Your task to perform on an android device: turn off notifications in google photos Image 0: 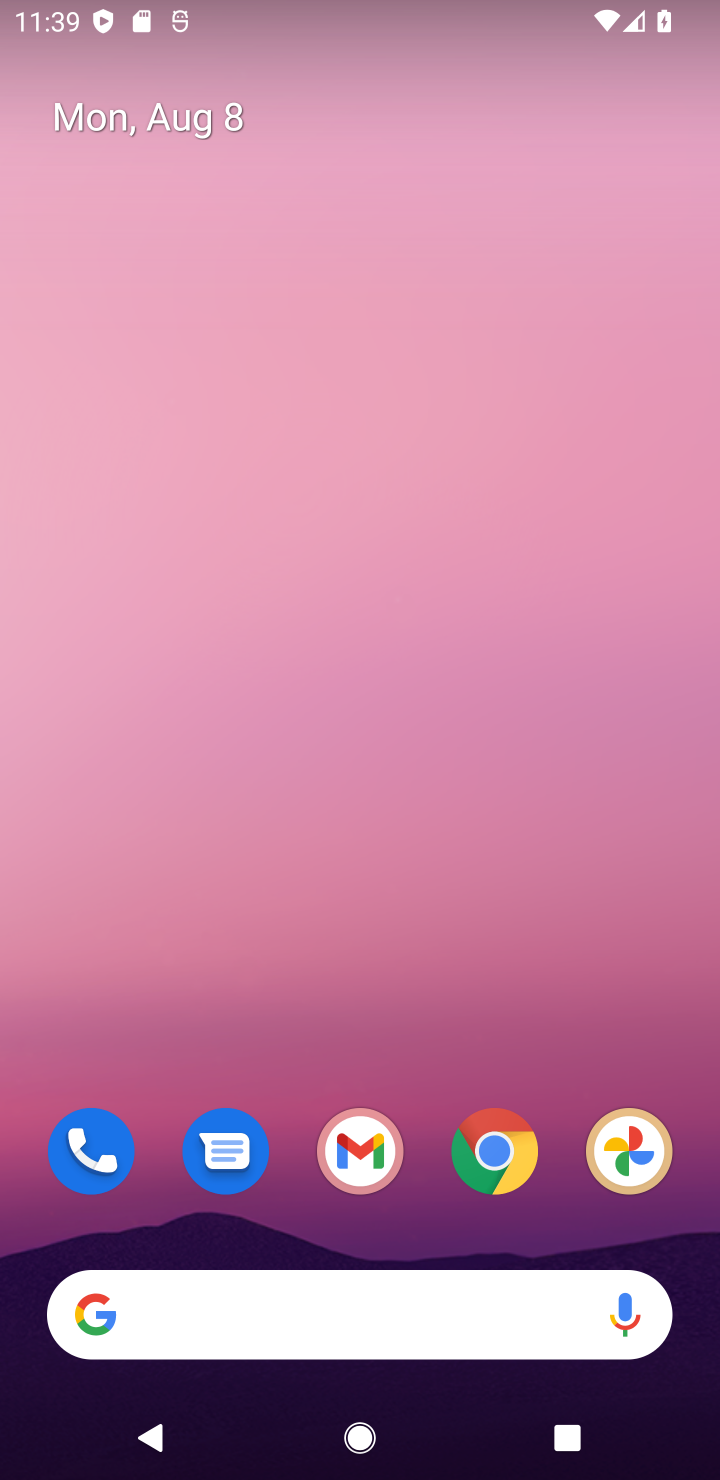
Step 0: drag from (408, 1320) to (406, 352)
Your task to perform on an android device: turn off notifications in google photos Image 1: 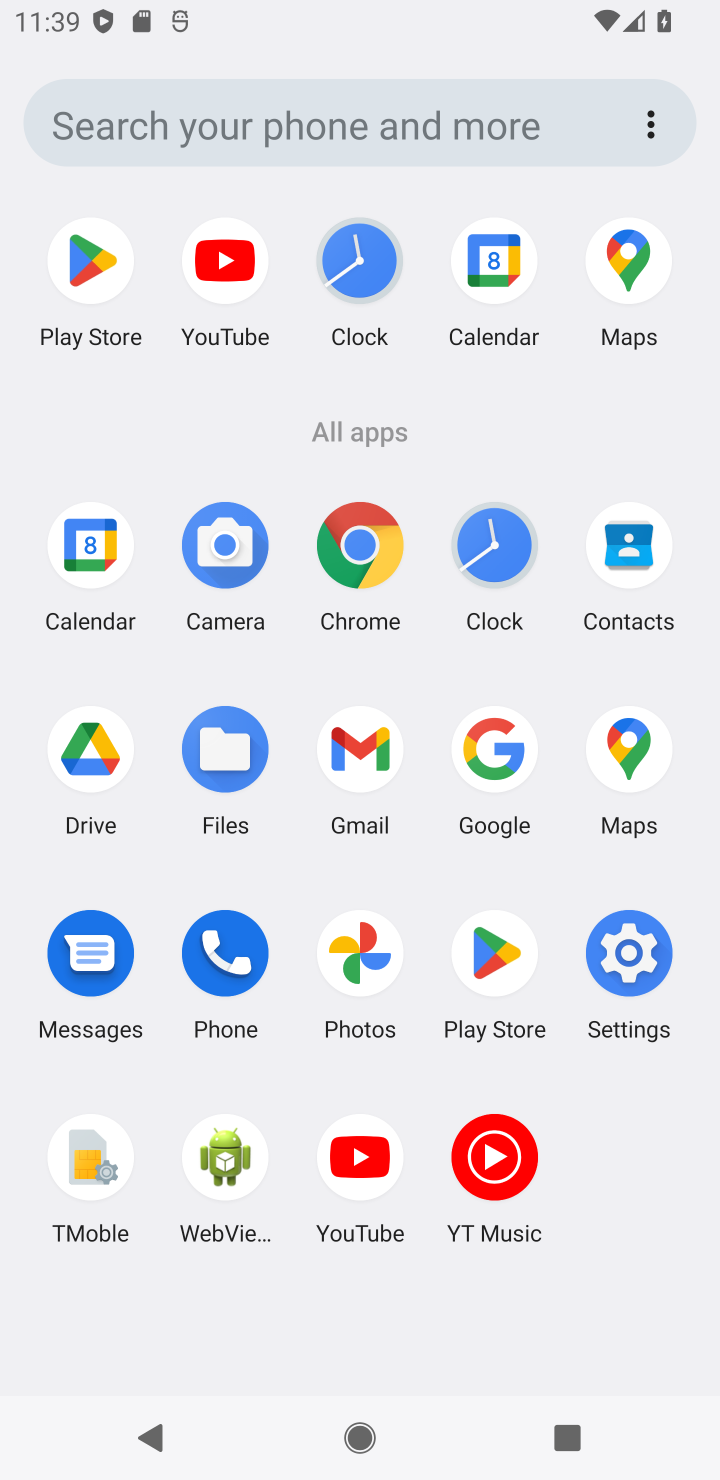
Step 1: click (366, 953)
Your task to perform on an android device: turn off notifications in google photos Image 2: 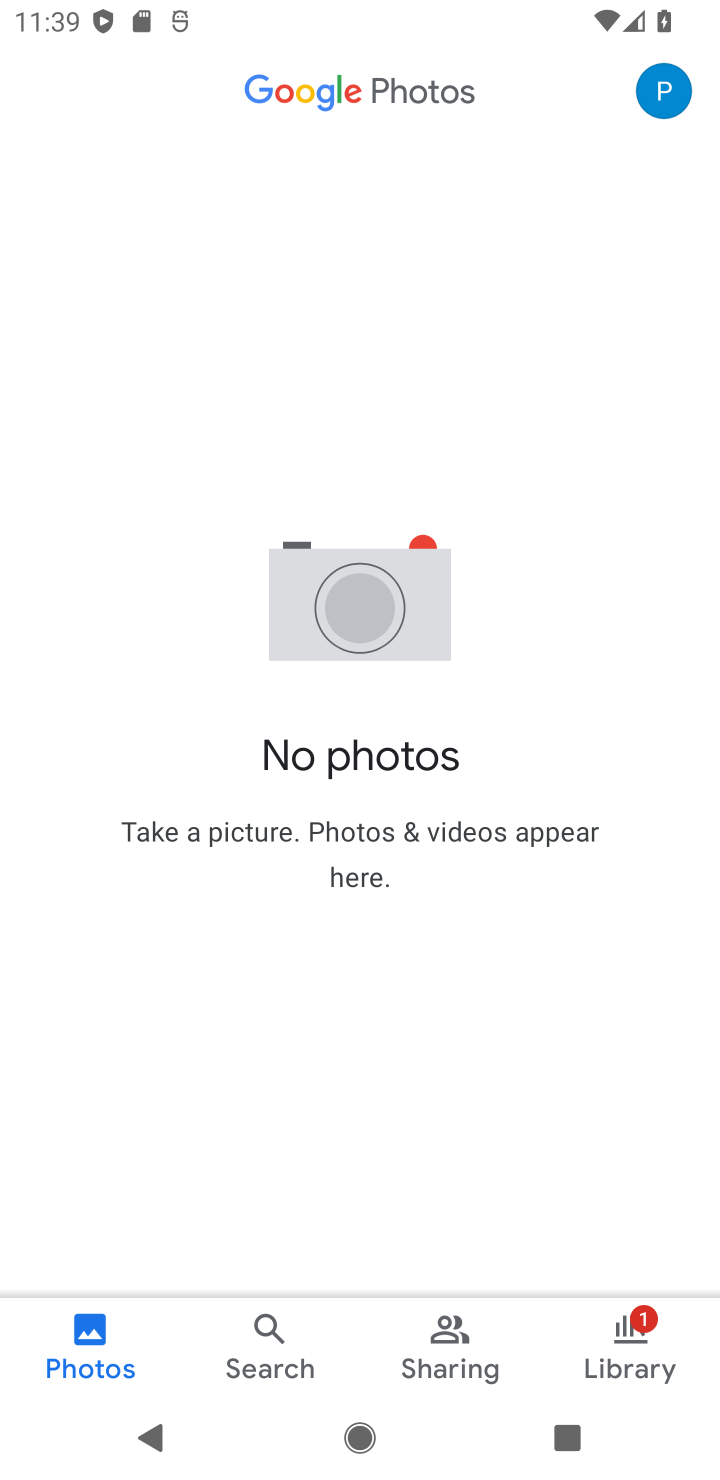
Step 2: press home button
Your task to perform on an android device: turn off notifications in google photos Image 3: 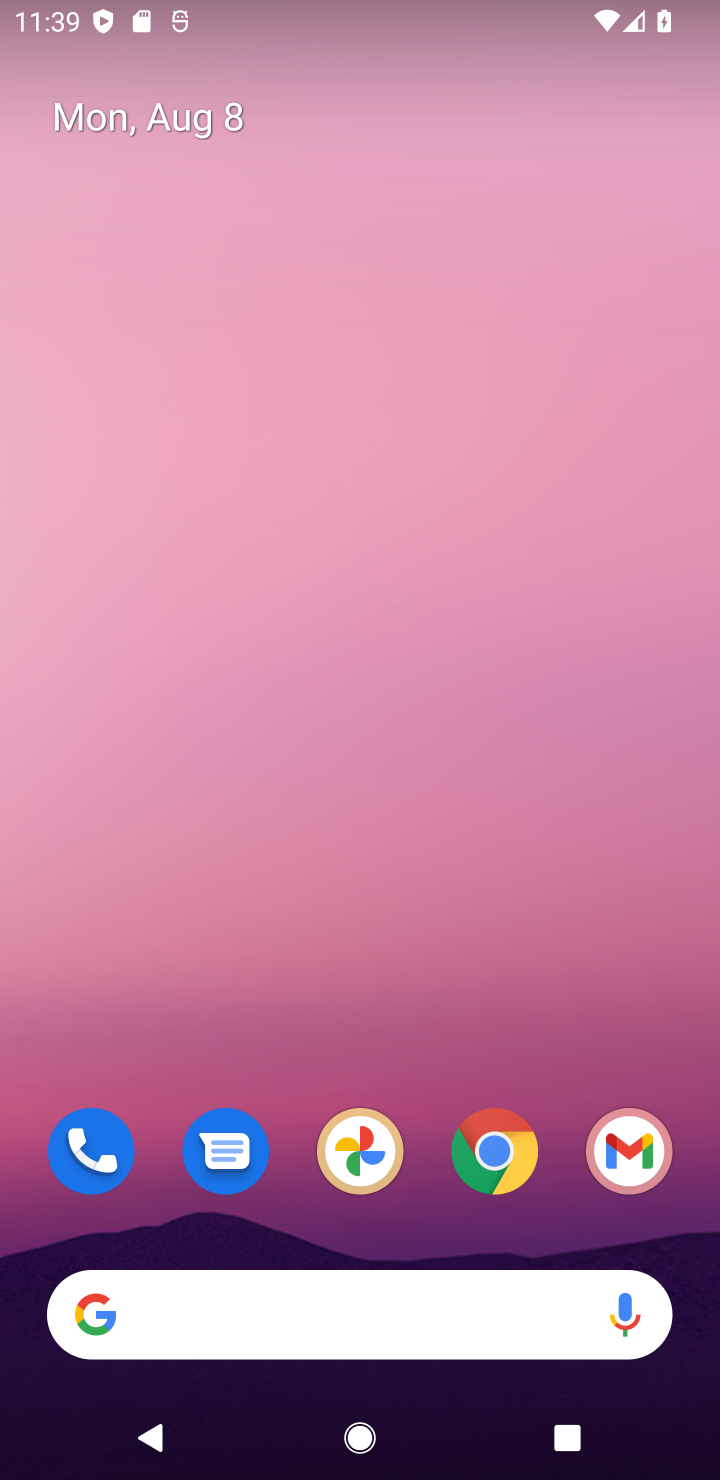
Step 3: click (365, 1155)
Your task to perform on an android device: turn off notifications in google photos Image 4: 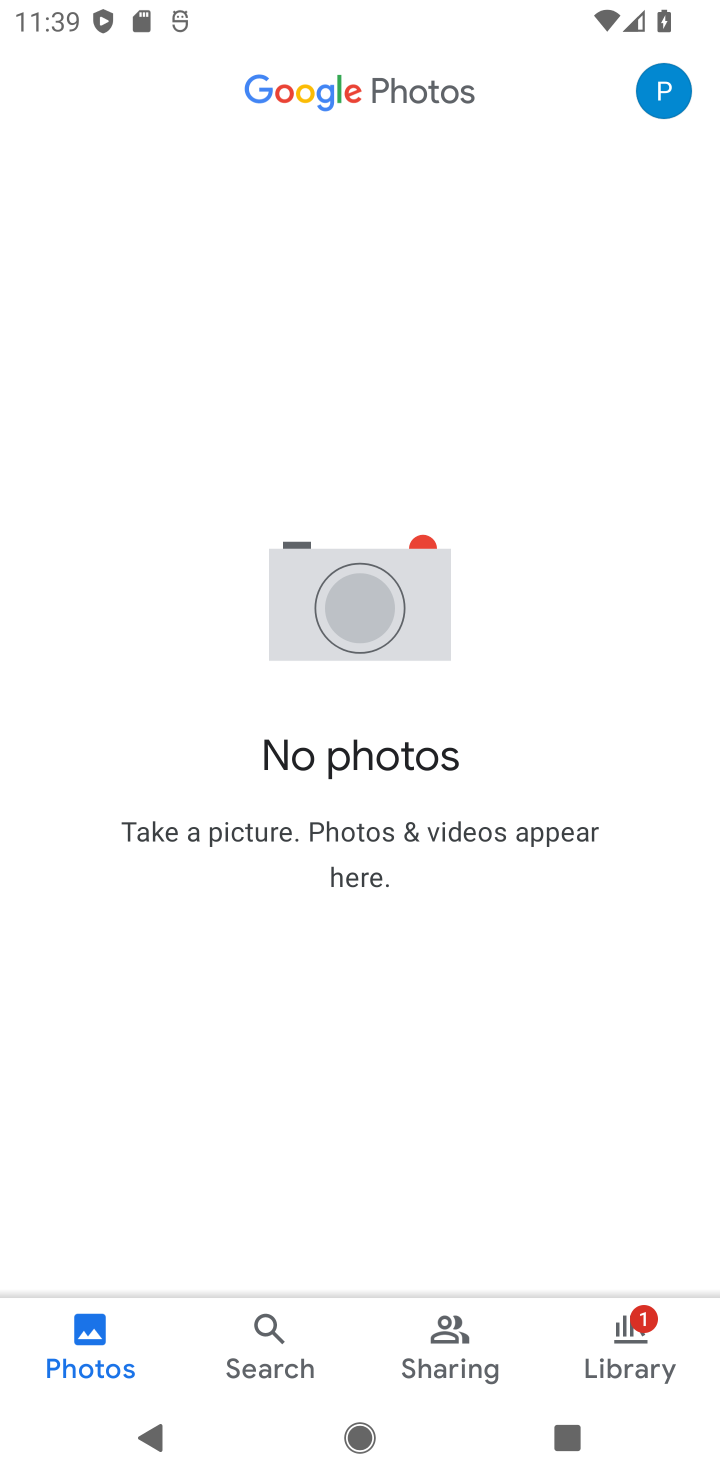
Step 4: click (678, 93)
Your task to perform on an android device: turn off notifications in google photos Image 5: 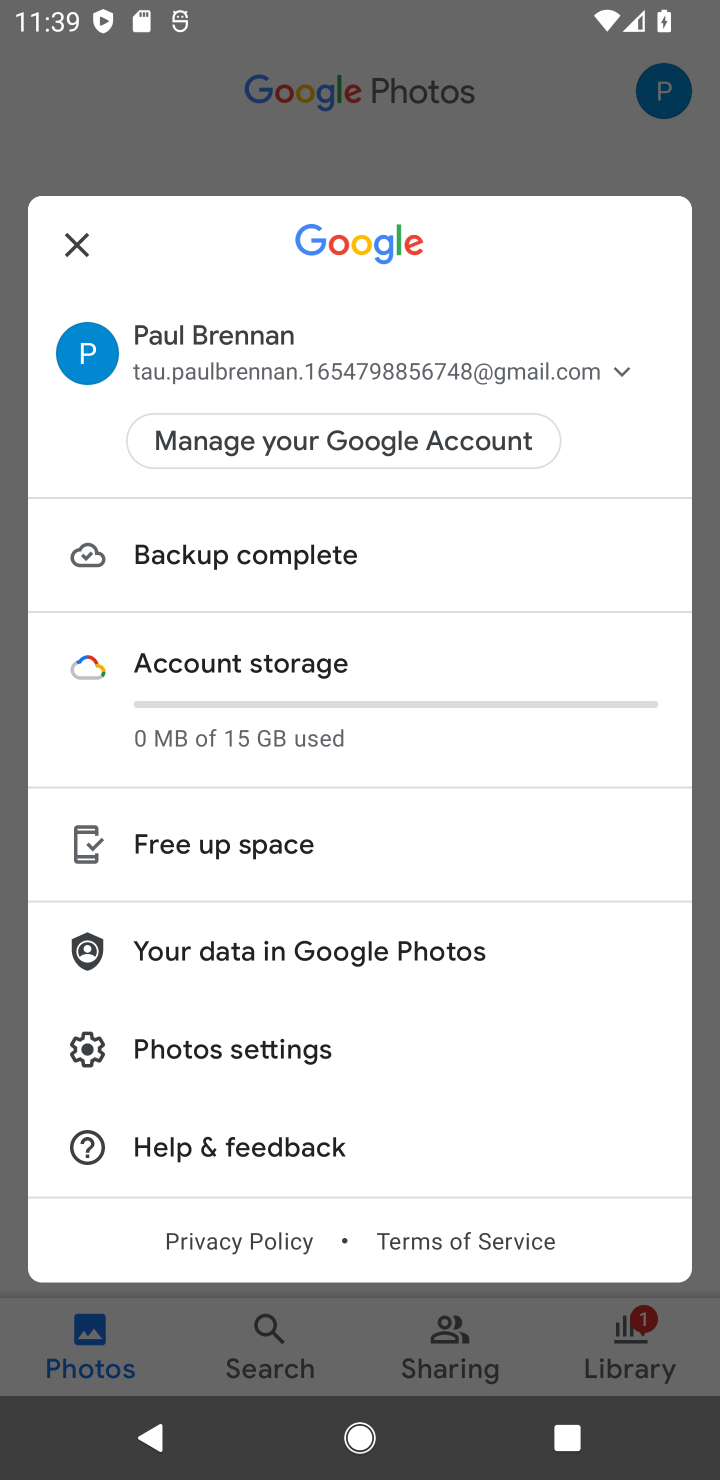
Step 5: click (247, 1035)
Your task to perform on an android device: turn off notifications in google photos Image 6: 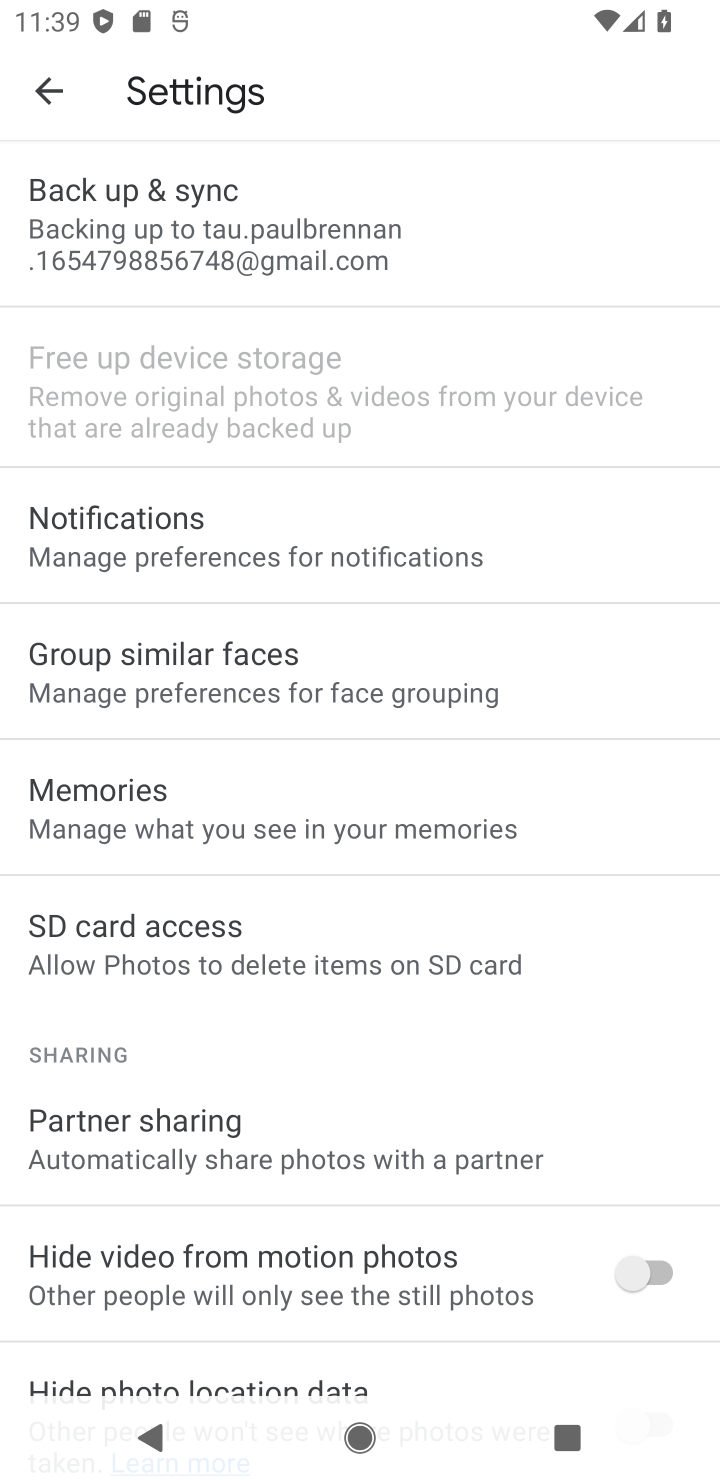
Step 6: click (199, 531)
Your task to perform on an android device: turn off notifications in google photos Image 7: 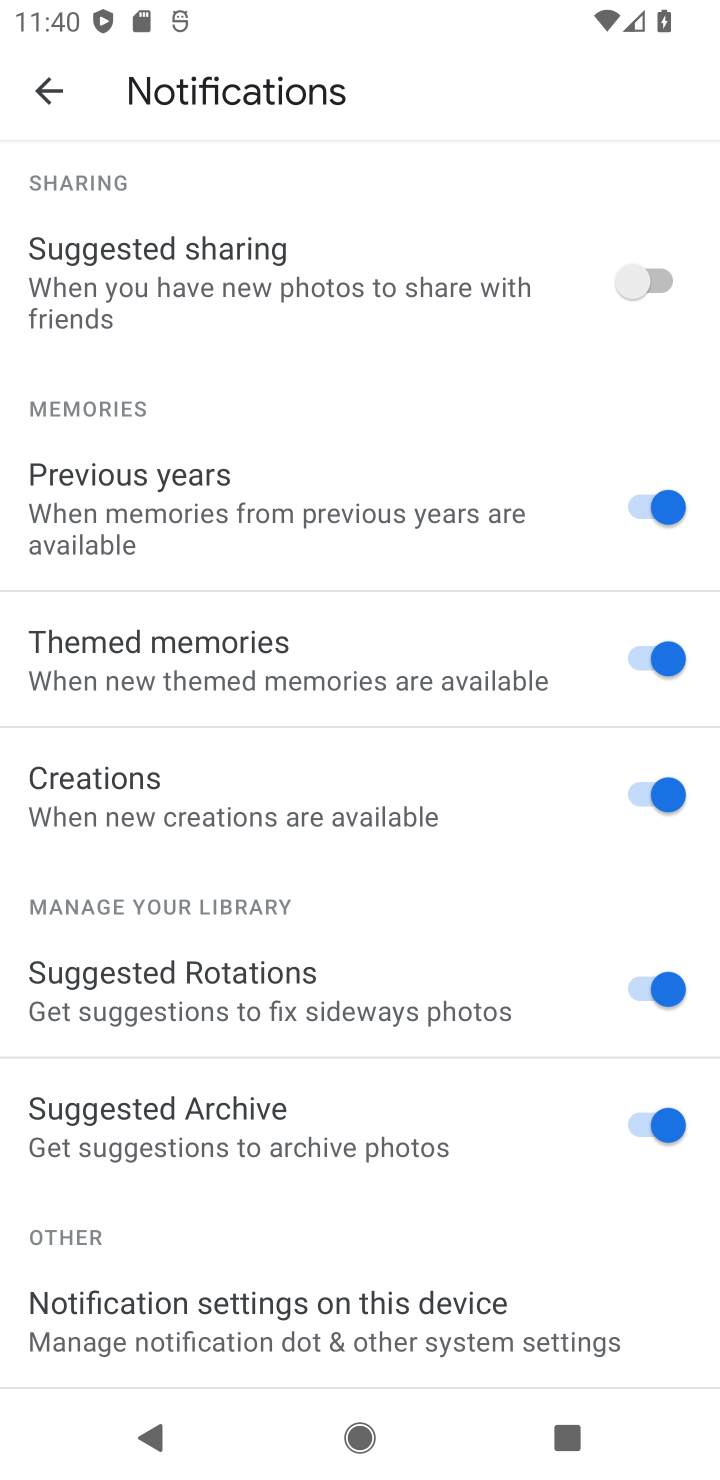
Step 7: click (451, 1314)
Your task to perform on an android device: turn off notifications in google photos Image 8: 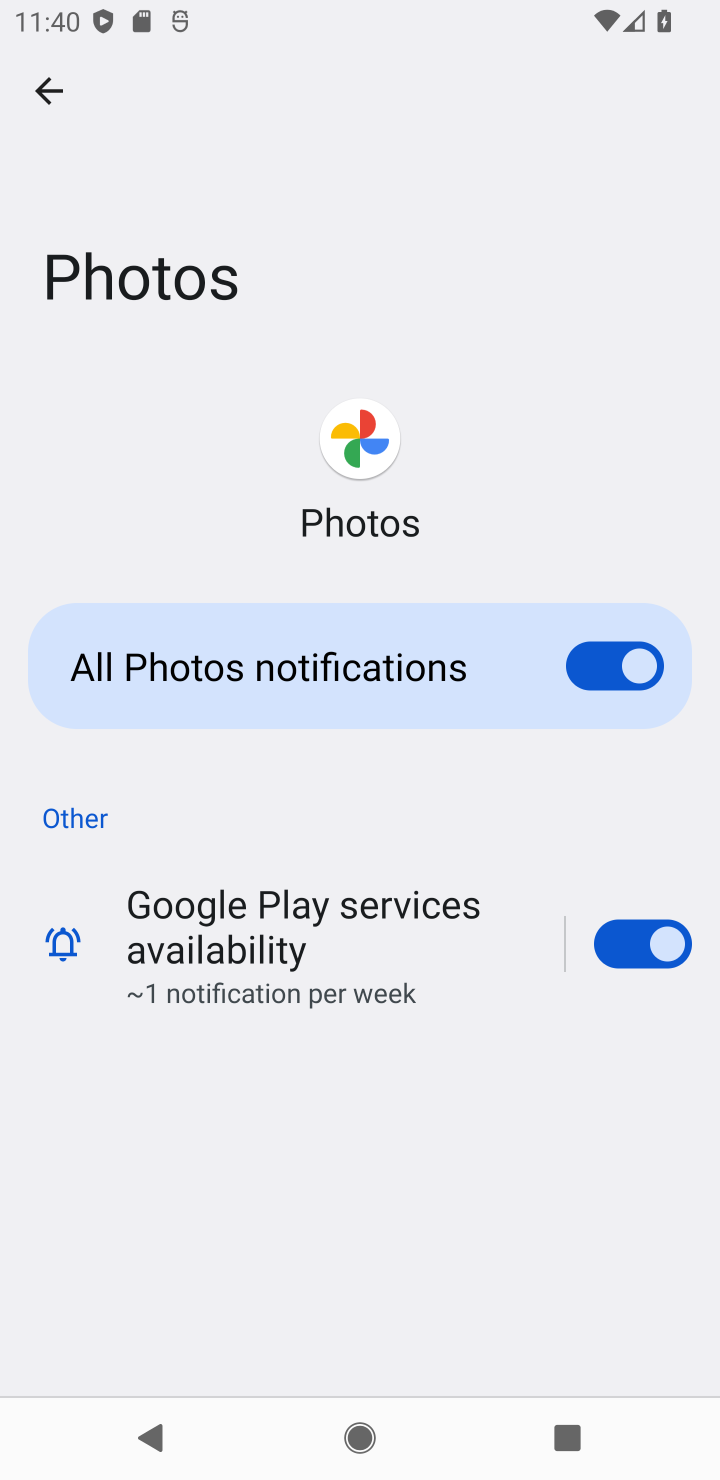
Step 8: task complete